Your task to perform on an android device: Open sound settings Image 0: 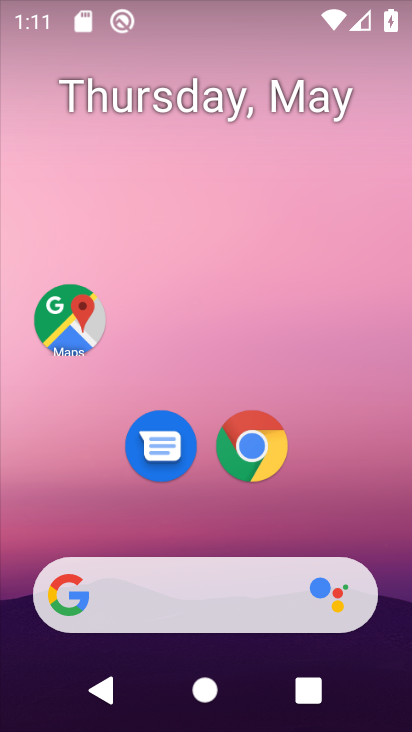
Step 0: drag from (212, 526) to (268, 39)
Your task to perform on an android device: Open sound settings Image 1: 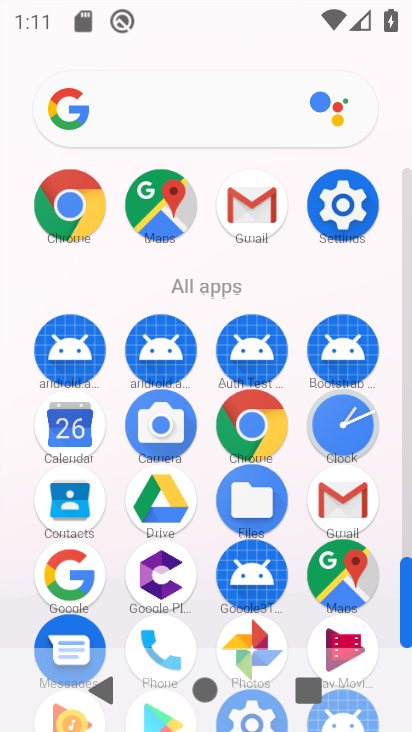
Step 1: click (349, 198)
Your task to perform on an android device: Open sound settings Image 2: 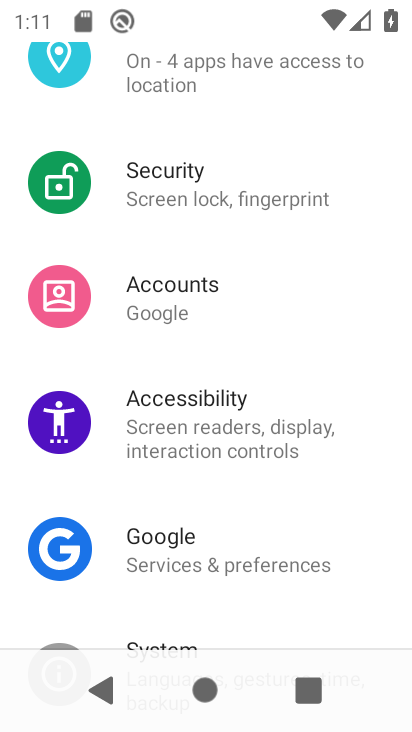
Step 2: drag from (222, 237) to (208, 722)
Your task to perform on an android device: Open sound settings Image 3: 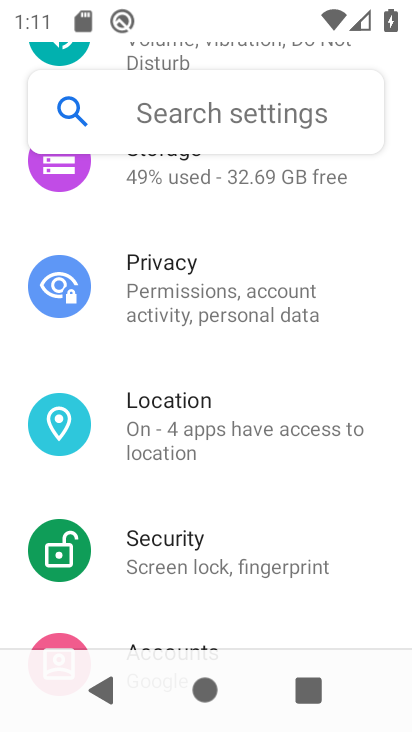
Step 3: drag from (262, 212) to (233, 727)
Your task to perform on an android device: Open sound settings Image 4: 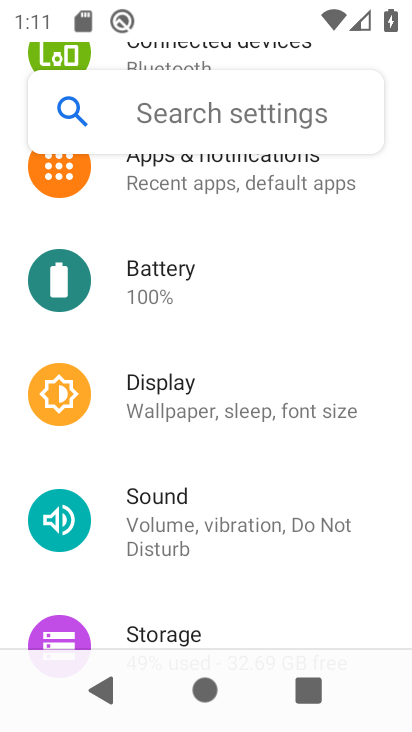
Step 4: click (207, 523)
Your task to perform on an android device: Open sound settings Image 5: 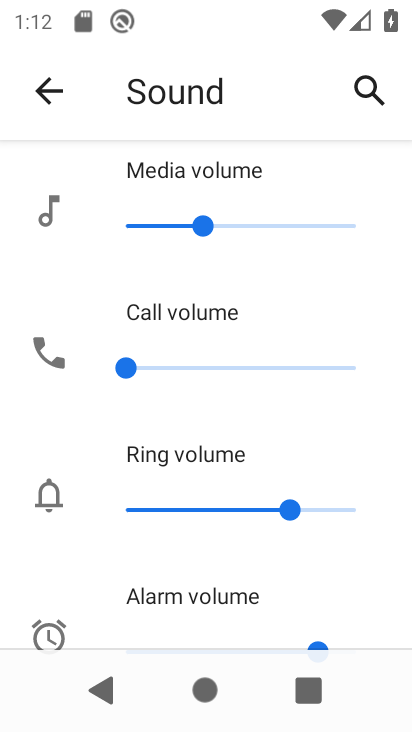
Step 5: task complete